Your task to perform on an android device: toggle location history Image 0: 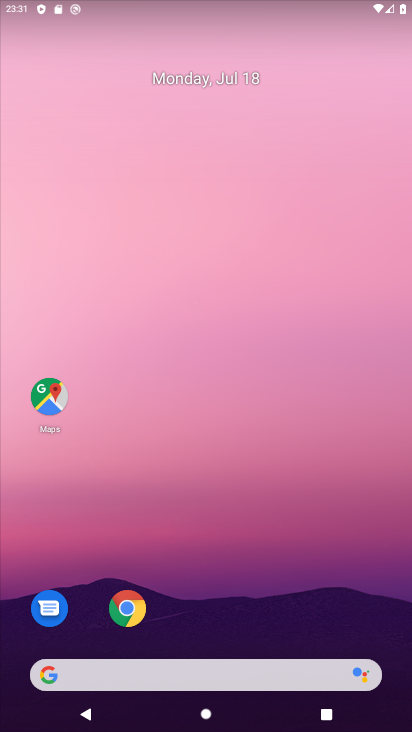
Step 0: drag from (192, 674) to (244, 191)
Your task to perform on an android device: toggle location history Image 1: 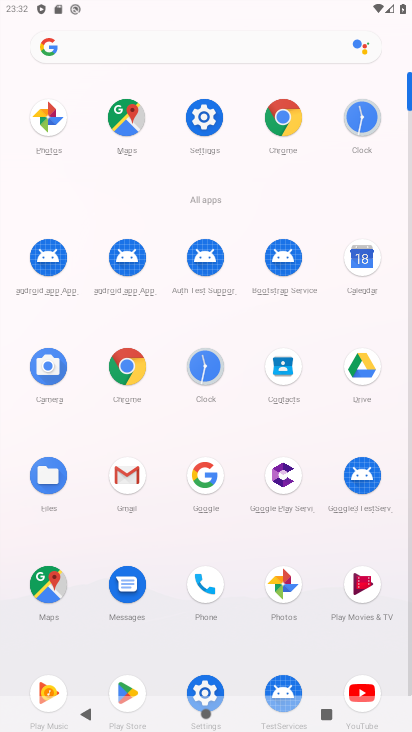
Step 1: click (202, 116)
Your task to perform on an android device: toggle location history Image 2: 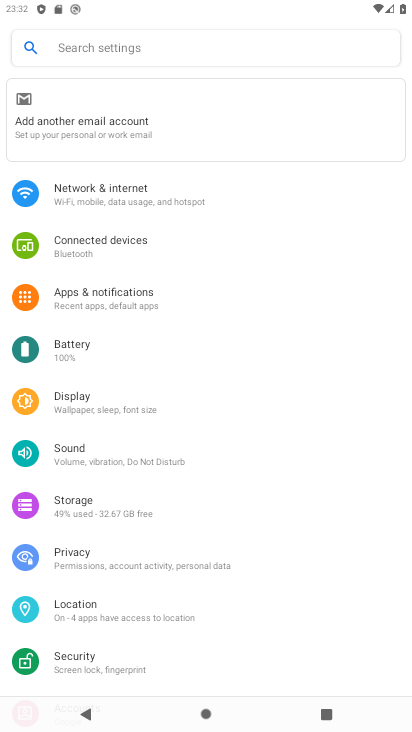
Step 2: click (78, 607)
Your task to perform on an android device: toggle location history Image 3: 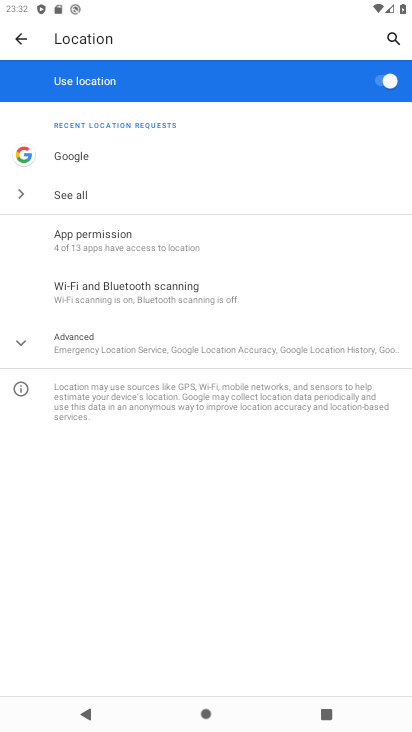
Step 3: click (184, 346)
Your task to perform on an android device: toggle location history Image 4: 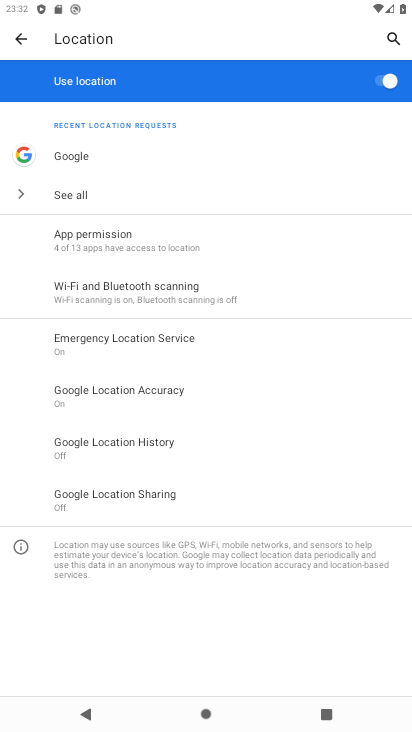
Step 4: click (122, 446)
Your task to perform on an android device: toggle location history Image 5: 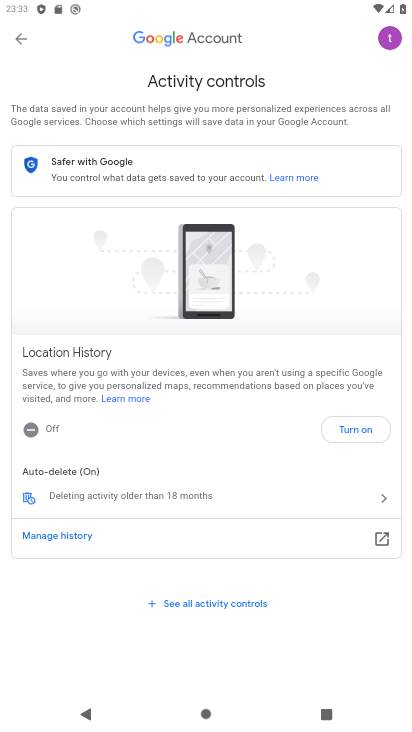
Step 5: click (350, 428)
Your task to perform on an android device: toggle location history Image 6: 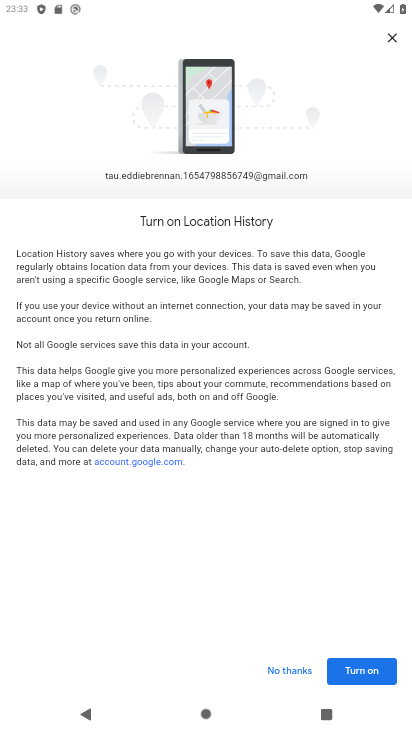
Step 6: click (360, 672)
Your task to perform on an android device: toggle location history Image 7: 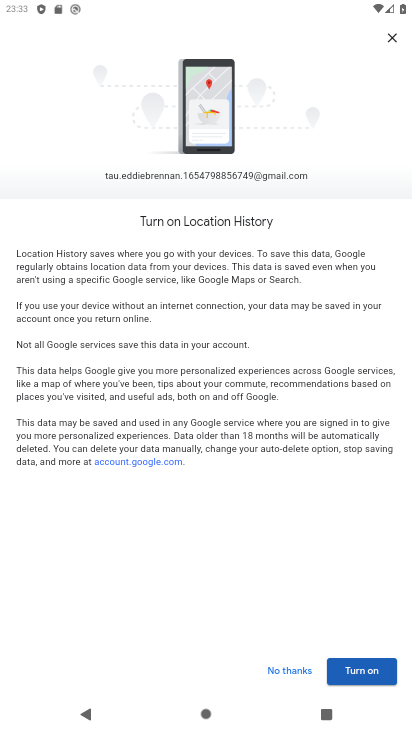
Step 7: click (366, 671)
Your task to perform on an android device: toggle location history Image 8: 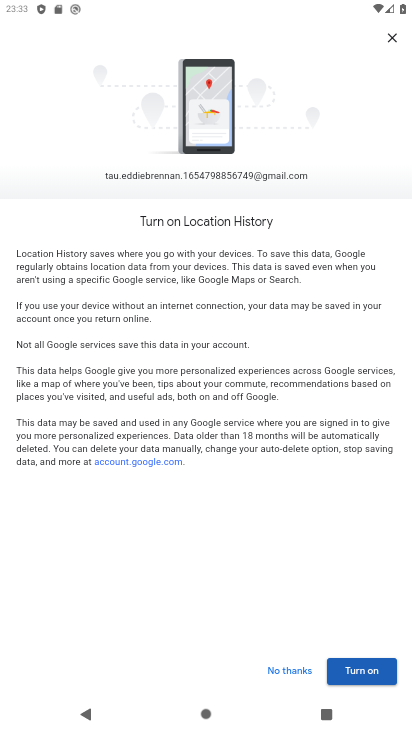
Step 8: click (359, 674)
Your task to perform on an android device: toggle location history Image 9: 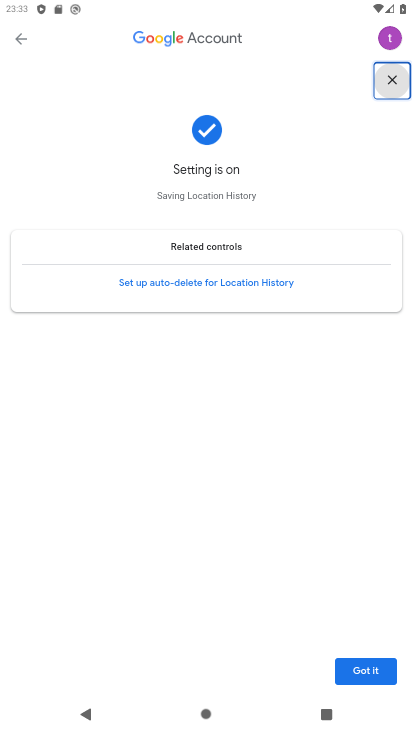
Step 9: click (366, 672)
Your task to perform on an android device: toggle location history Image 10: 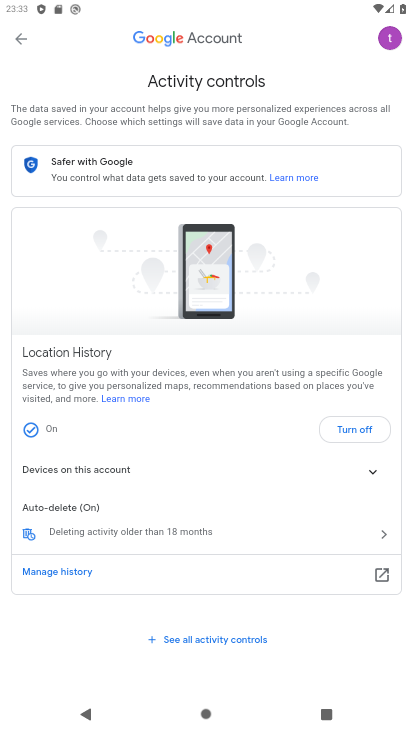
Step 10: task complete